Your task to perform on an android device: Go to Yahoo.com Image 0: 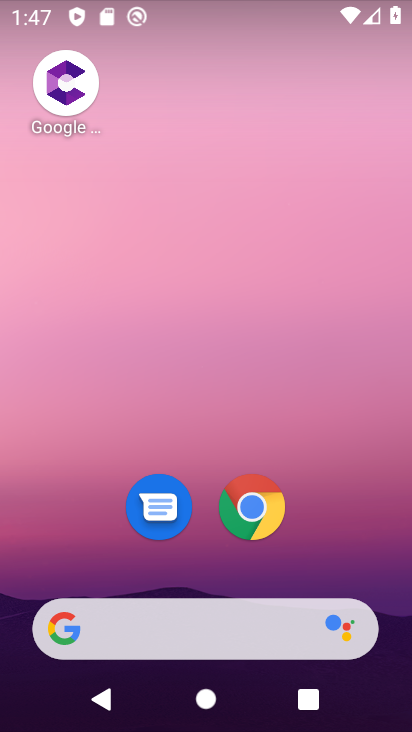
Step 0: click (242, 511)
Your task to perform on an android device: Go to Yahoo.com Image 1: 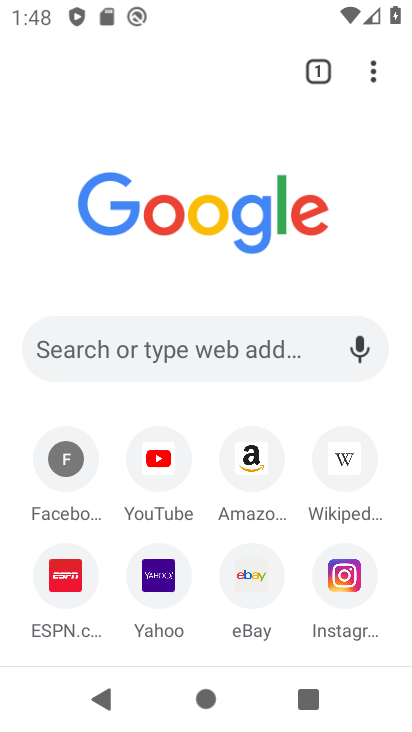
Step 1: click (161, 575)
Your task to perform on an android device: Go to Yahoo.com Image 2: 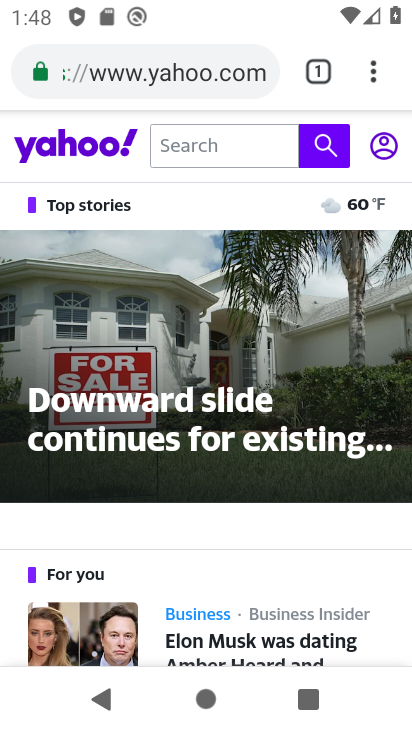
Step 2: task complete